Your task to perform on an android device: Go to network settings Image 0: 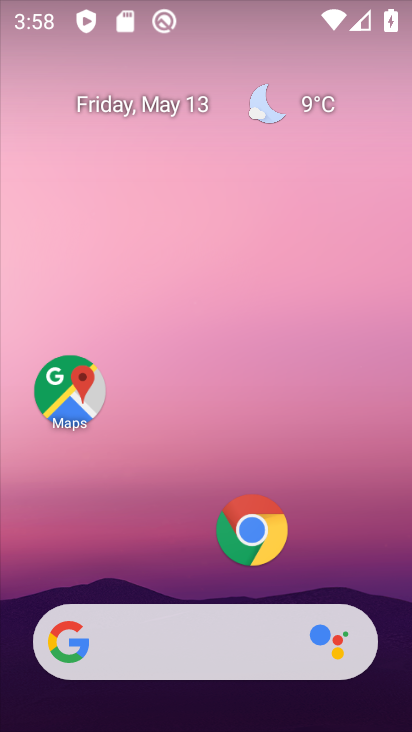
Step 0: drag from (195, 565) to (212, 41)
Your task to perform on an android device: Go to network settings Image 1: 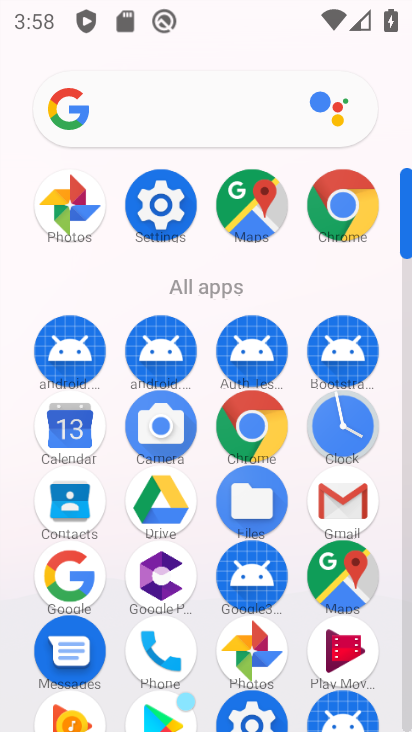
Step 1: click (155, 199)
Your task to perform on an android device: Go to network settings Image 2: 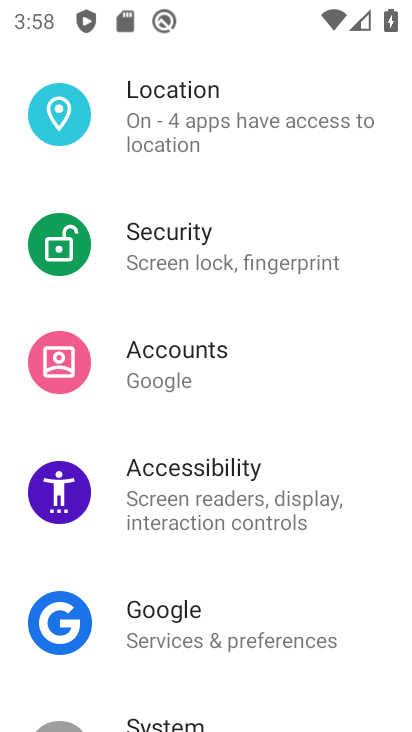
Step 2: drag from (105, 121) to (86, 636)
Your task to perform on an android device: Go to network settings Image 3: 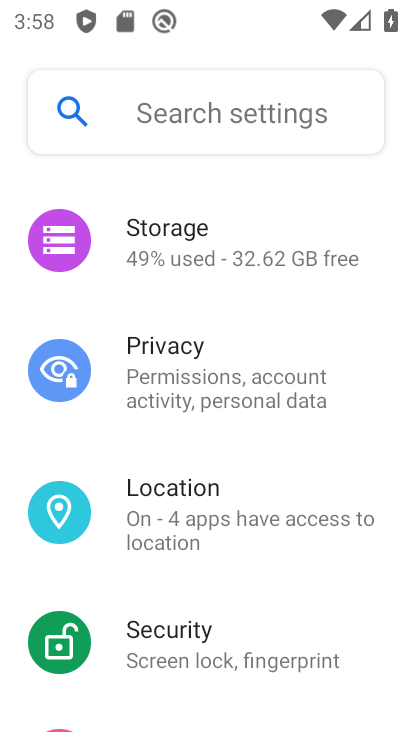
Step 3: drag from (117, 213) to (112, 730)
Your task to perform on an android device: Go to network settings Image 4: 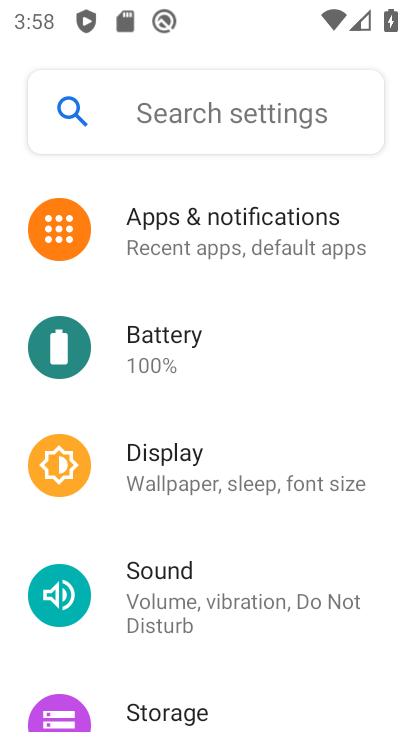
Step 4: drag from (107, 200) to (106, 720)
Your task to perform on an android device: Go to network settings Image 5: 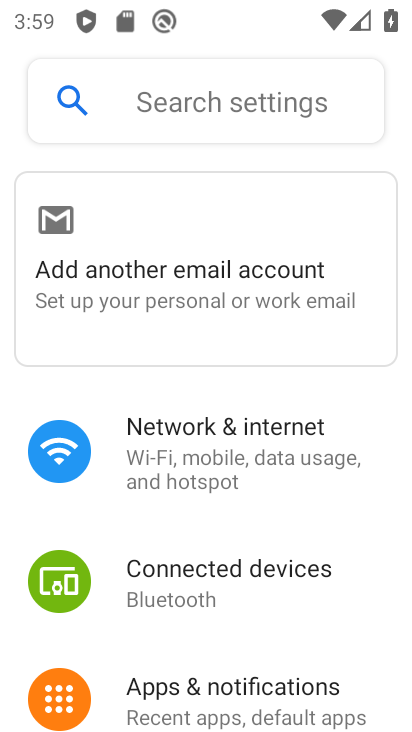
Step 5: click (106, 457)
Your task to perform on an android device: Go to network settings Image 6: 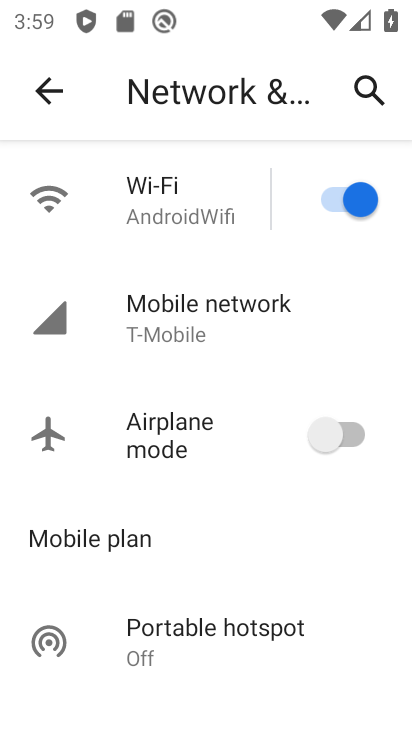
Step 6: drag from (174, 639) to (194, 101)
Your task to perform on an android device: Go to network settings Image 7: 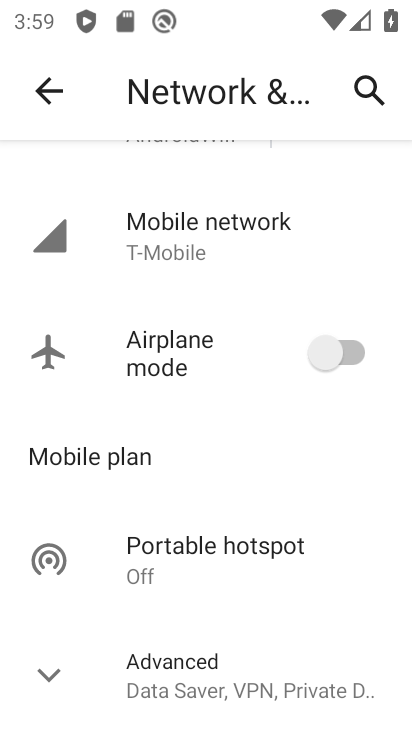
Step 7: click (45, 670)
Your task to perform on an android device: Go to network settings Image 8: 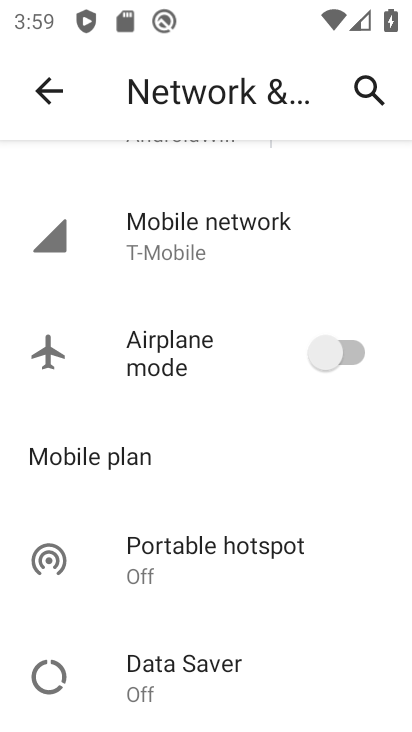
Step 8: task complete